Your task to perform on an android device: Open Maps and search for coffee Image 0: 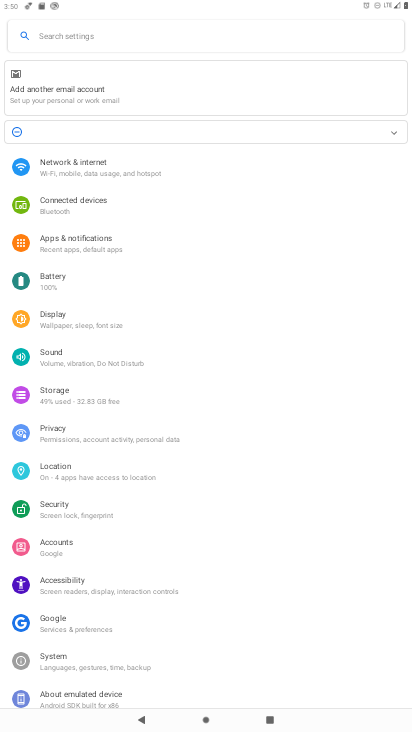
Step 0: press home button
Your task to perform on an android device: Open Maps and search for coffee Image 1: 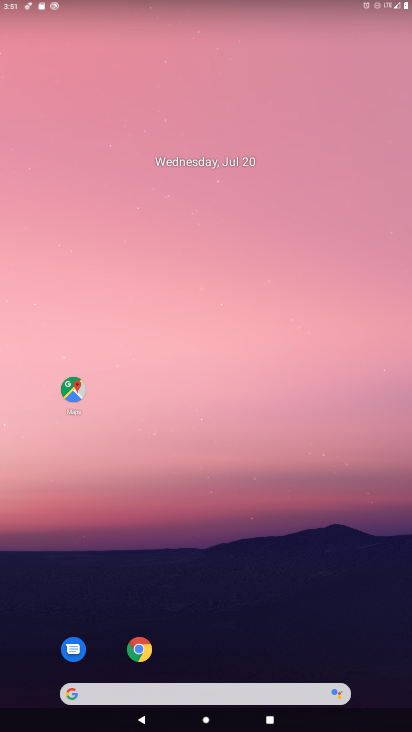
Step 1: click (72, 389)
Your task to perform on an android device: Open Maps and search for coffee Image 2: 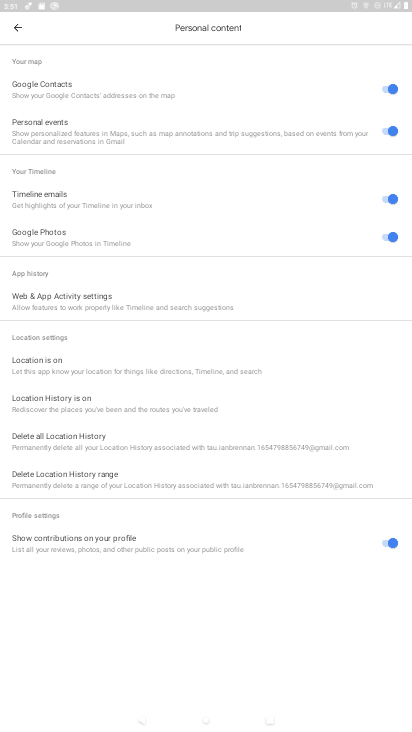
Step 2: press back button
Your task to perform on an android device: Open Maps and search for coffee Image 3: 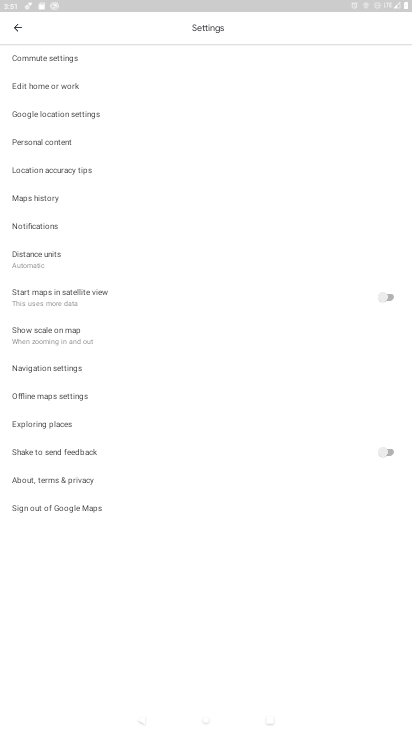
Step 3: press back button
Your task to perform on an android device: Open Maps and search for coffee Image 4: 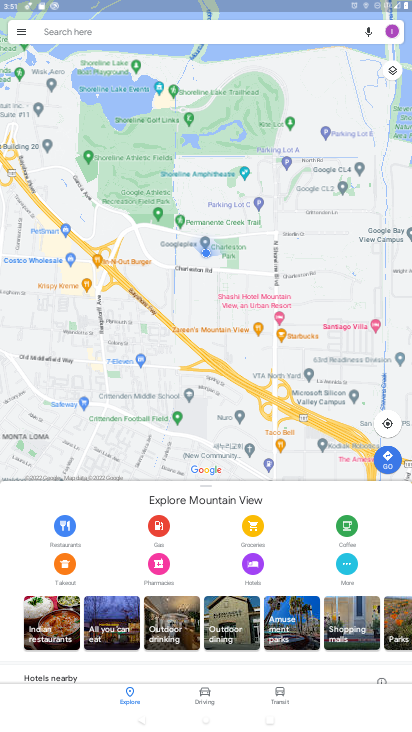
Step 4: click (105, 33)
Your task to perform on an android device: Open Maps and search for coffee Image 5: 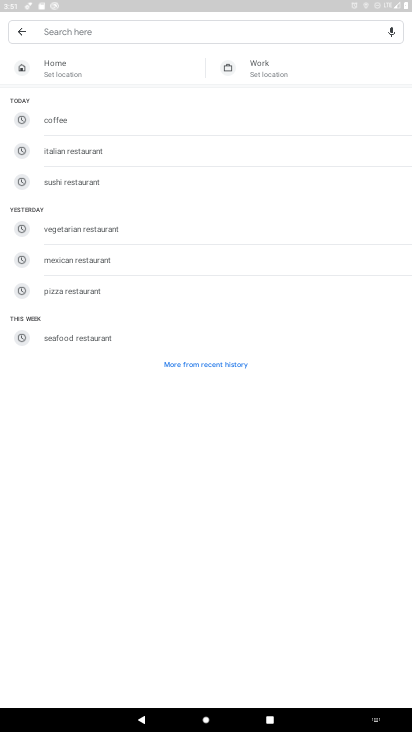
Step 5: type "coffee"
Your task to perform on an android device: Open Maps and search for coffee Image 6: 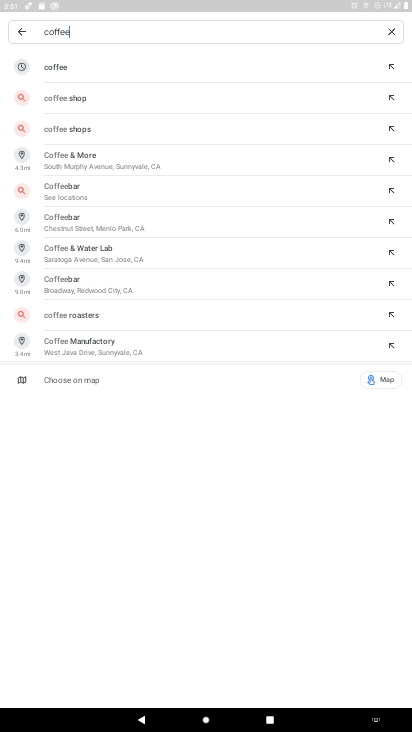
Step 6: click (56, 68)
Your task to perform on an android device: Open Maps and search for coffee Image 7: 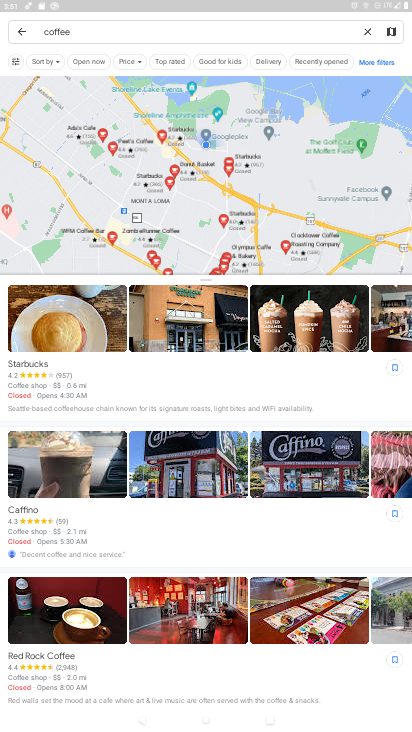
Step 7: task complete